Your task to perform on an android device: Open settings on Google Maps Image 0: 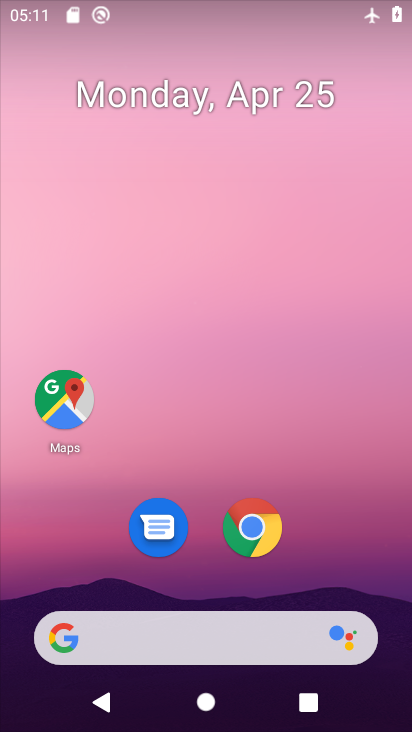
Step 0: click (61, 395)
Your task to perform on an android device: Open settings on Google Maps Image 1: 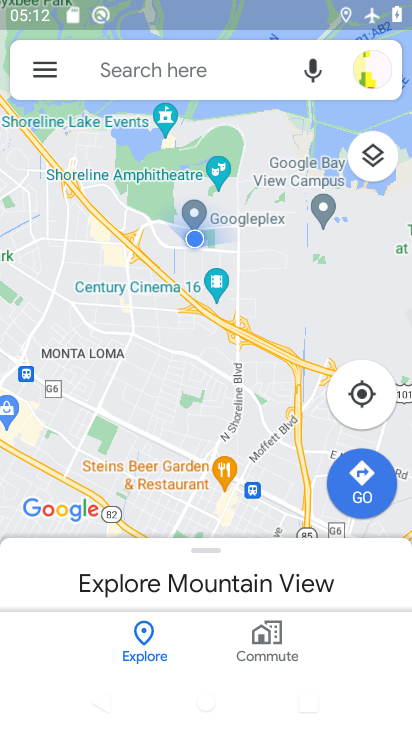
Step 1: click (42, 63)
Your task to perform on an android device: Open settings on Google Maps Image 2: 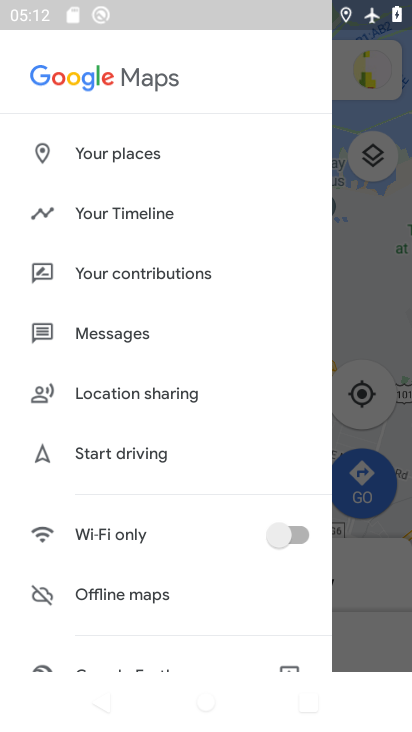
Step 2: drag from (222, 592) to (204, 299)
Your task to perform on an android device: Open settings on Google Maps Image 3: 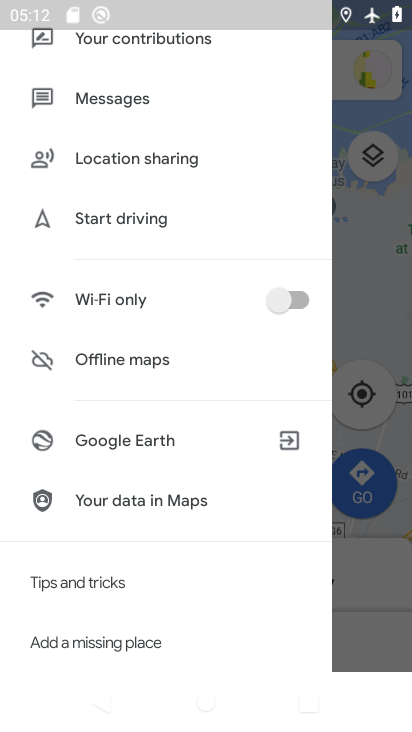
Step 3: drag from (218, 587) to (199, 181)
Your task to perform on an android device: Open settings on Google Maps Image 4: 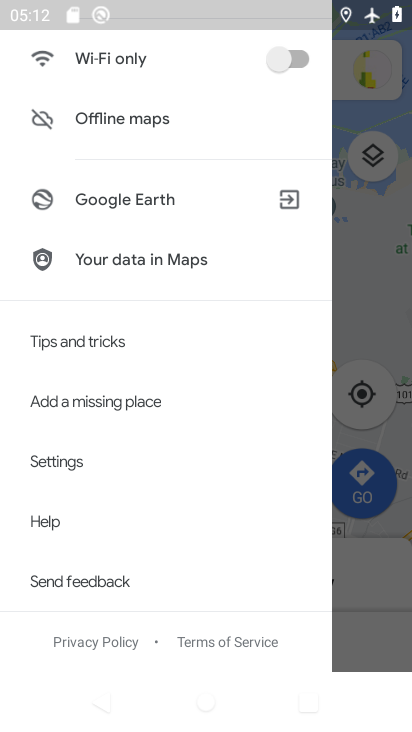
Step 4: click (61, 457)
Your task to perform on an android device: Open settings on Google Maps Image 5: 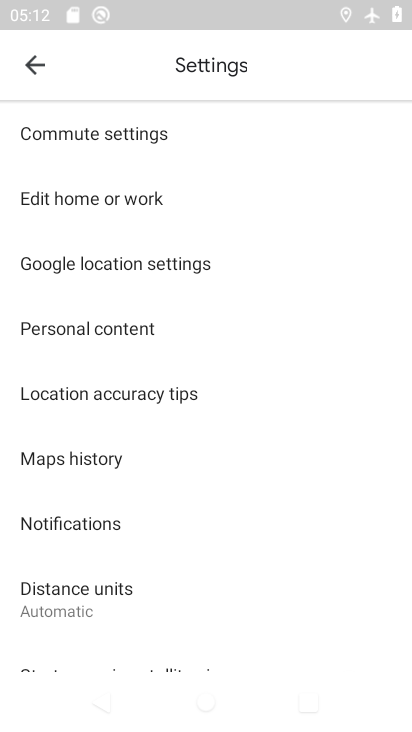
Step 5: task complete